Your task to perform on an android device: show emergency info Image 0: 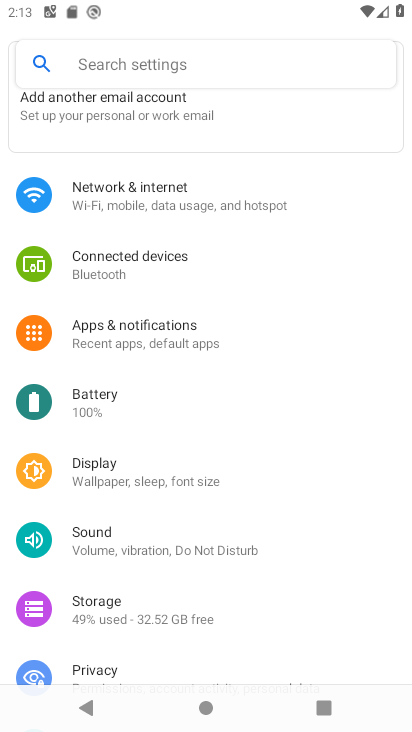
Step 0: drag from (220, 608) to (217, 199)
Your task to perform on an android device: show emergency info Image 1: 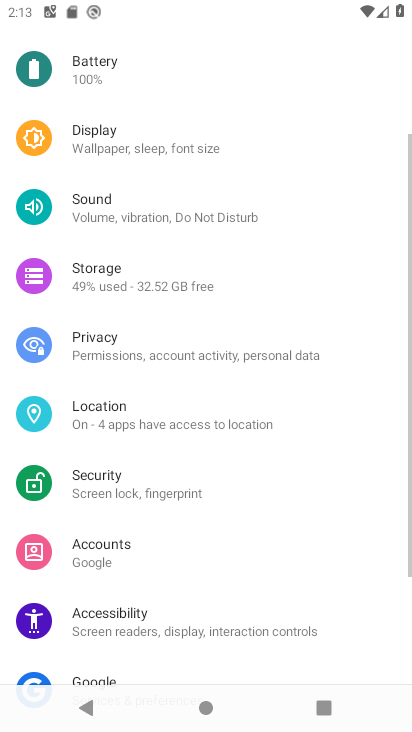
Step 1: drag from (195, 642) to (222, 292)
Your task to perform on an android device: show emergency info Image 2: 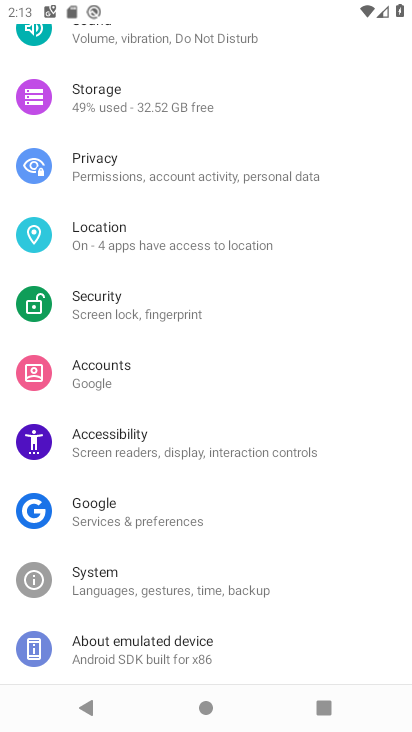
Step 2: click (174, 647)
Your task to perform on an android device: show emergency info Image 3: 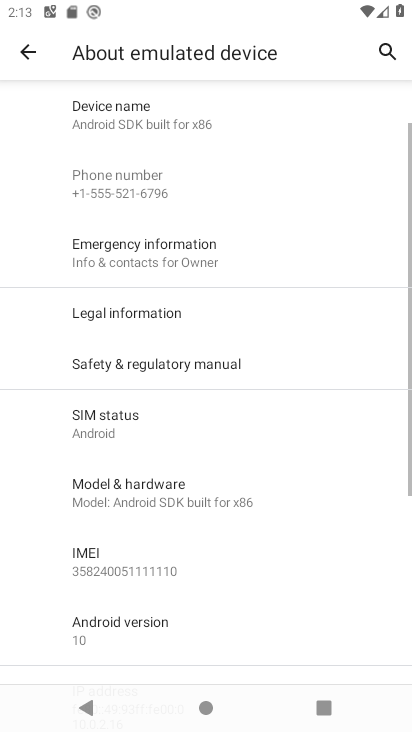
Step 3: task complete